Your task to perform on an android device: Open maps Image 0: 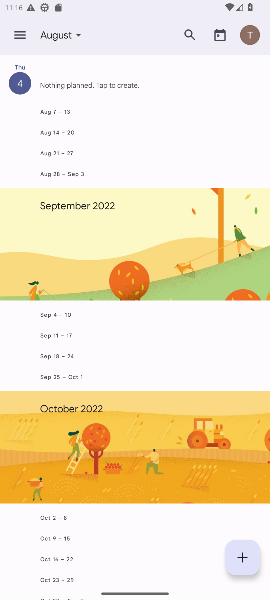
Step 0: press home button
Your task to perform on an android device: Open maps Image 1: 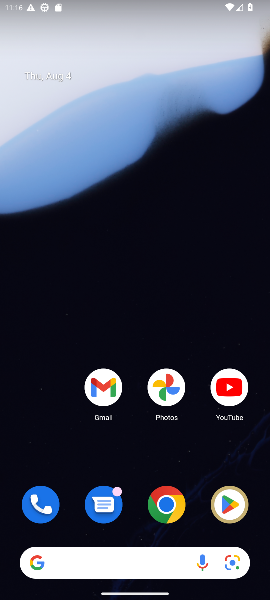
Step 1: drag from (129, 455) to (130, 129)
Your task to perform on an android device: Open maps Image 2: 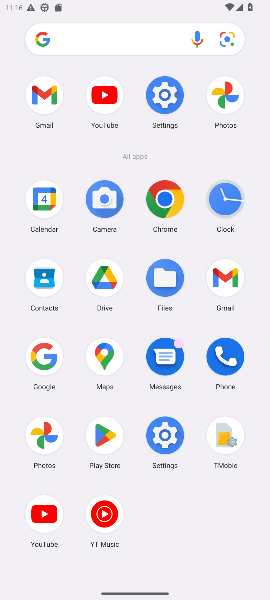
Step 2: click (98, 353)
Your task to perform on an android device: Open maps Image 3: 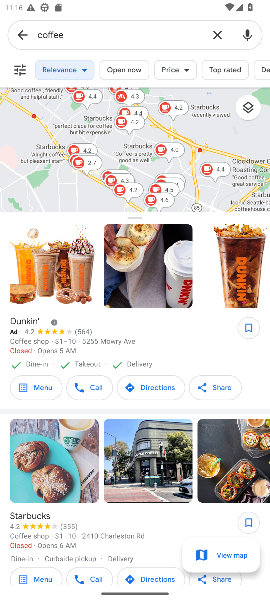
Step 3: task complete